Your task to perform on an android device: Go to privacy settings Image 0: 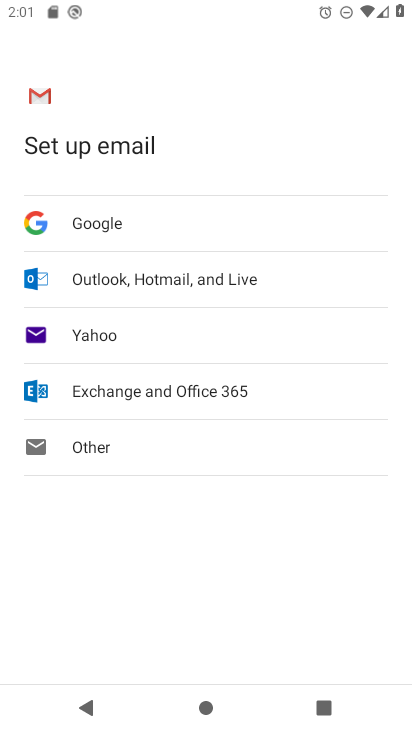
Step 0: press home button
Your task to perform on an android device: Go to privacy settings Image 1: 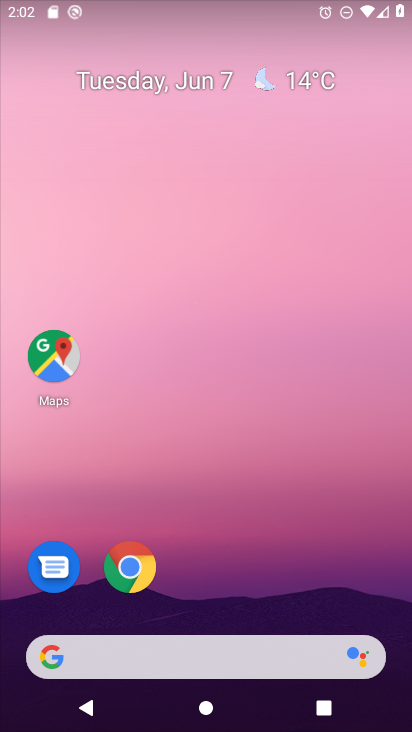
Step 1: drag from (364, 567) to (375, 0)
Your task to perform on an android device: Go to privacy settings Image 2: 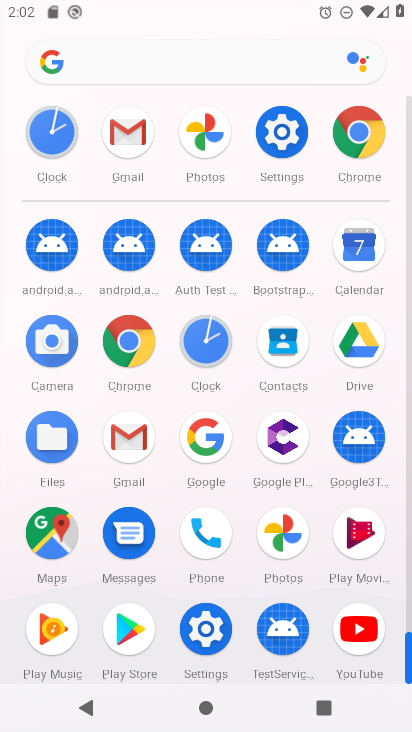
Step 2: click (293, 145)
Your task to perform on an android device: Go to privacy settings Image 3: 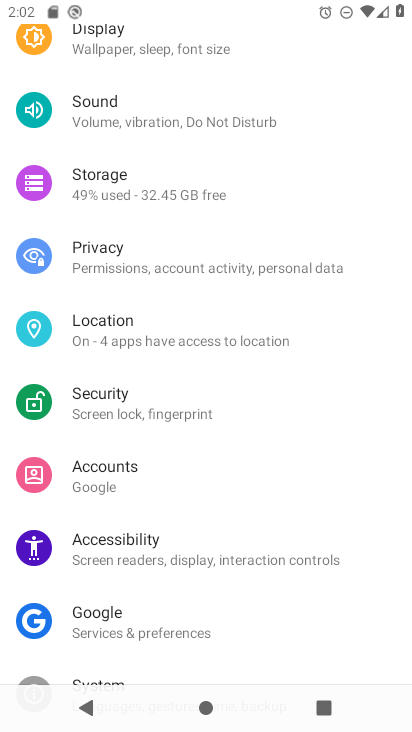
Step 3: click (160, 253)
Your task to perform on an android device: Go to privacy settings Image 4: 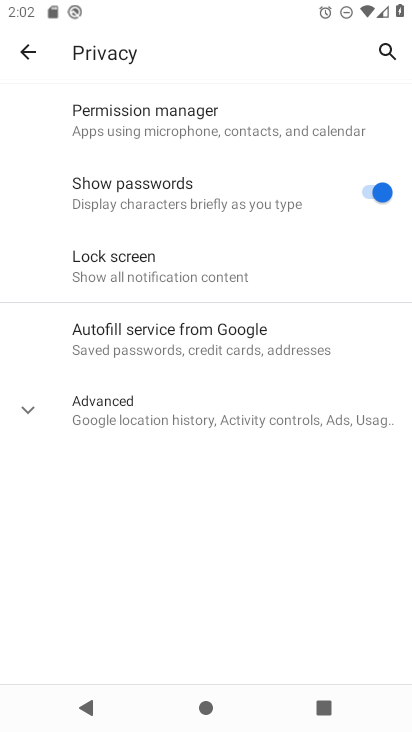
Step 4: task complete